Your task to perform on an android device: Open calendar and show me the fourth week of next month Image 0: 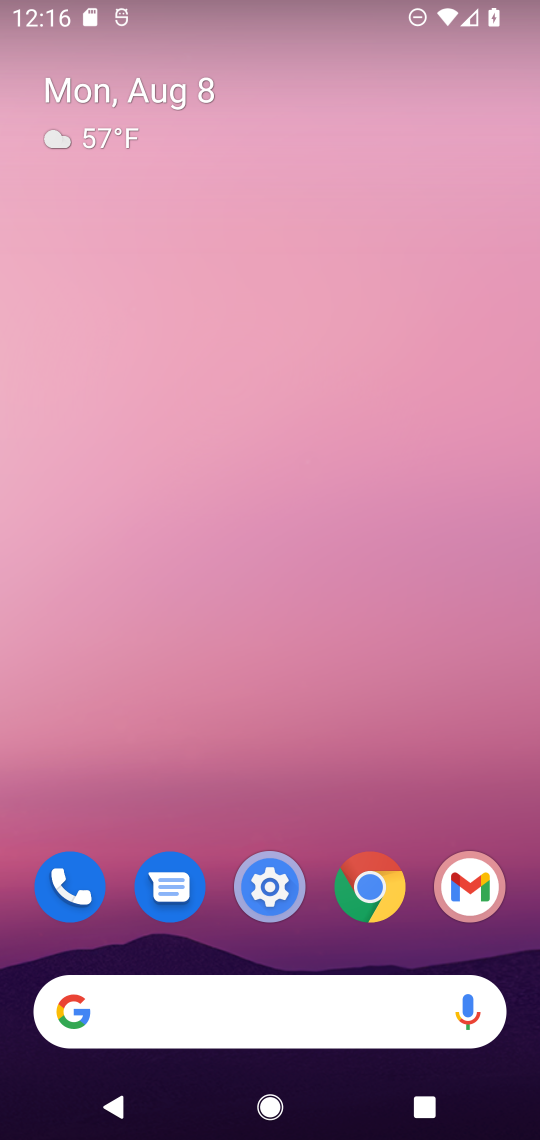
Step 0: drag from (352, 769) to (323, 87)
Your task to perform on an android device: Open calendar and show me the fourth week of next month Image 1: 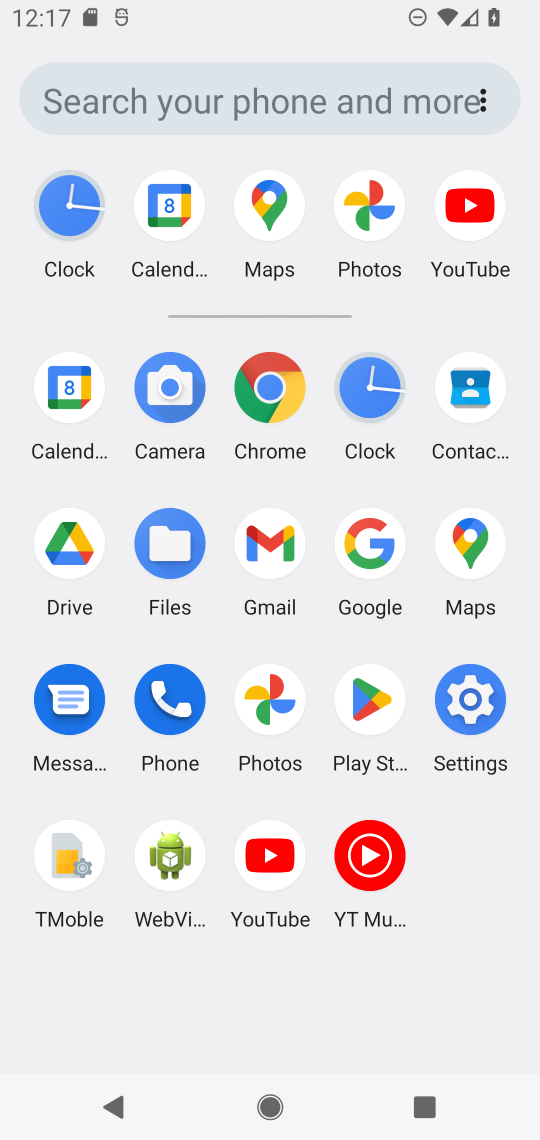
Step 1: click (166, 215)
Your task to perform on an android device: Open calendar and show me the fourth week of next month Image 2: 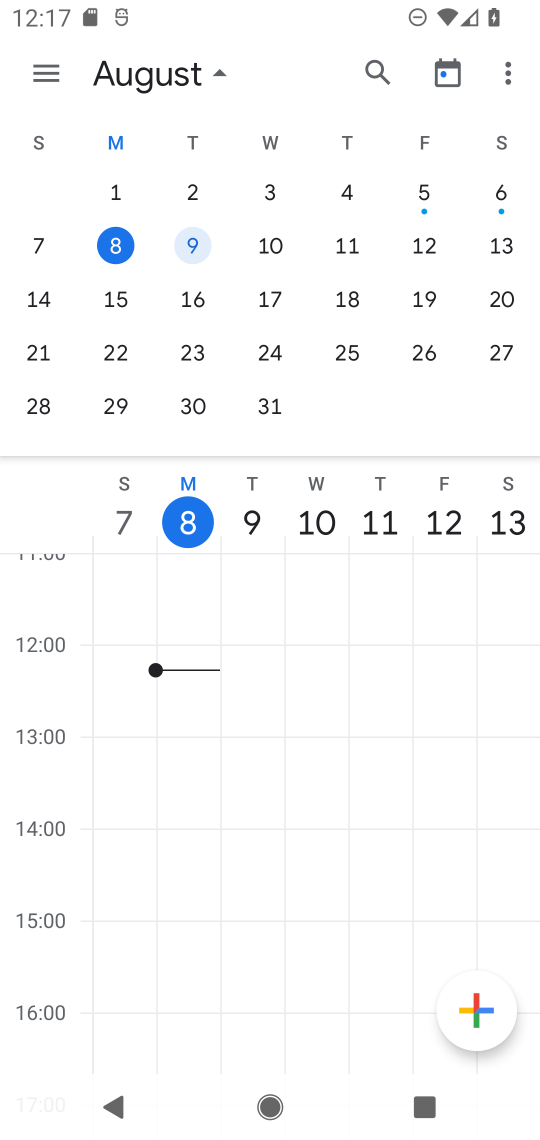
Step 2: drag from (451, 268) to (84, 265)
Your task to perform on an android device: Open calendar and show me the fourth week of next month Image 3: 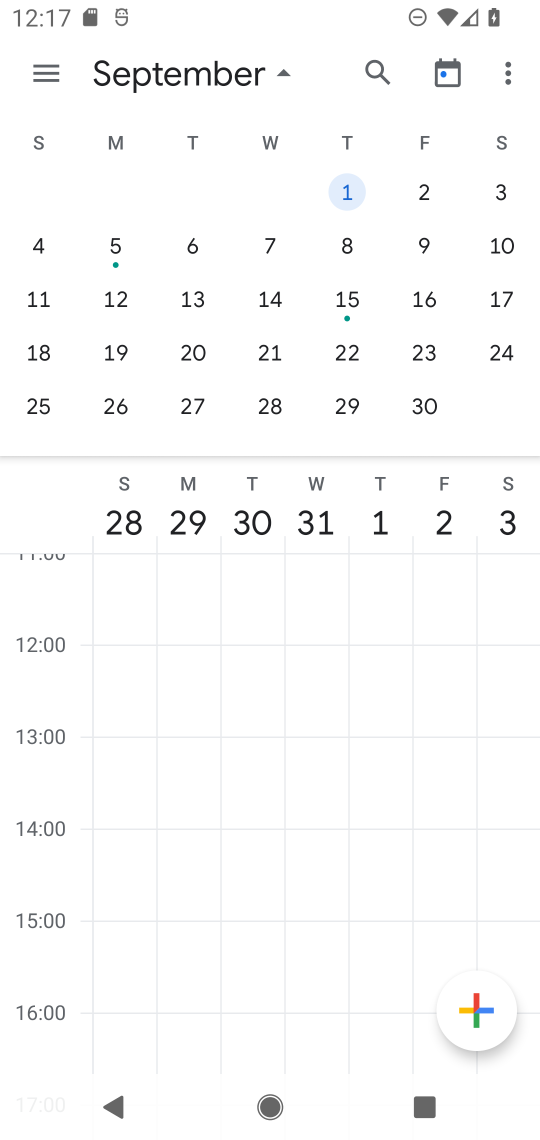
Step 3: click (263, 349)
Your task to perform on an android device: Open calendar and show me the fourth week of next month Image 4: 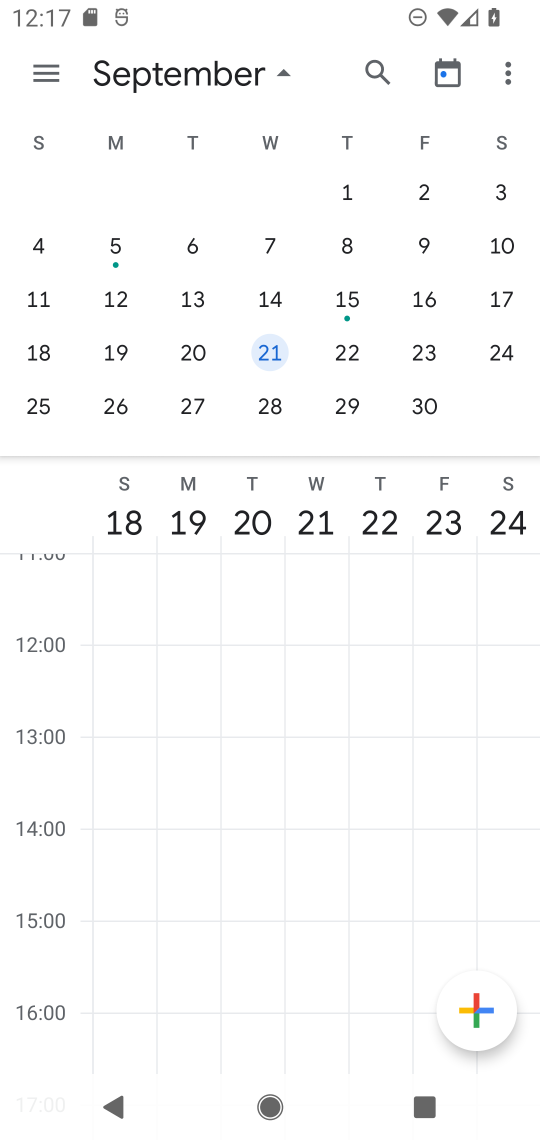
Step 4: task complete